Your task to perform on an android device: Go to settings Image 0: 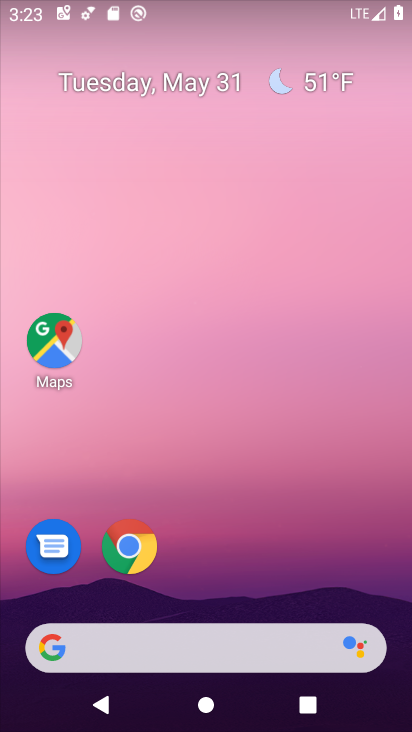
Step 0: drag from (272, 425) to (225, 42)
Your task to perform on an android device: Go to settings Image 1: 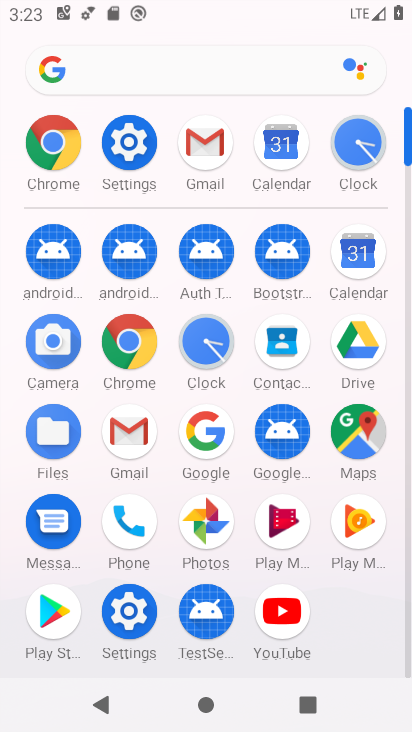
Step 1: click (128, 120)
Your task to perform on an android device: Go to settings Image 2: 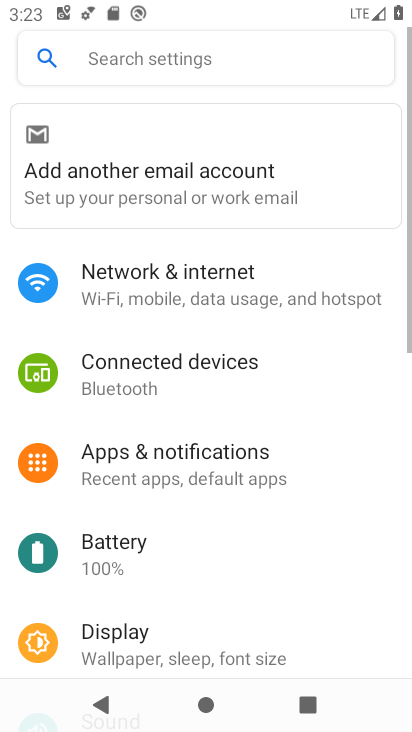
Step 2: task complete